Your task to perform on an android device: turn on the 12-hour format for clock Image 0: 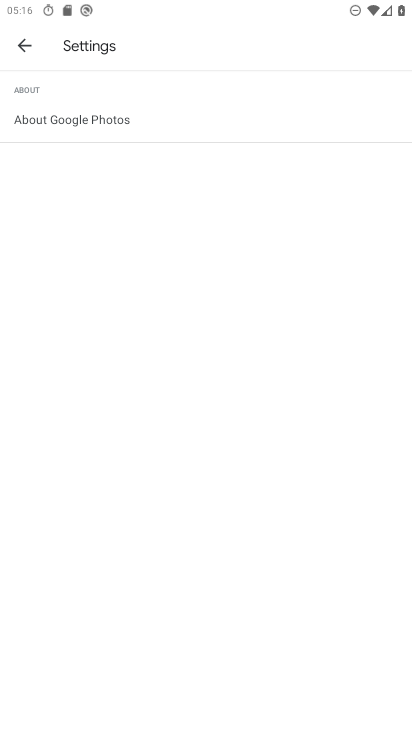
Step 0: press home button
Your task to perform on an android device: turn on the 12-hour format for clock Image 1: 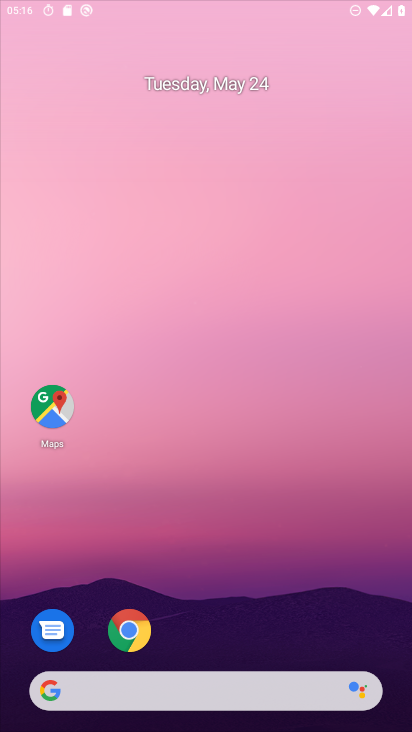
Step 1: drag from (205, 635) to (229, 345)
Your task to perform on an android device: turn on the 12-hour format for clock Image 2: 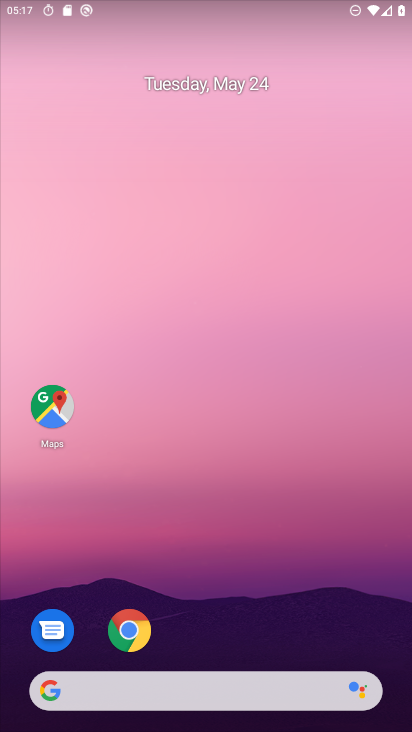
Step 2: drag from (214, 640) to (236, 249)
Your task to perform on an android device: turn on the 12-hour format for clock Image 3: 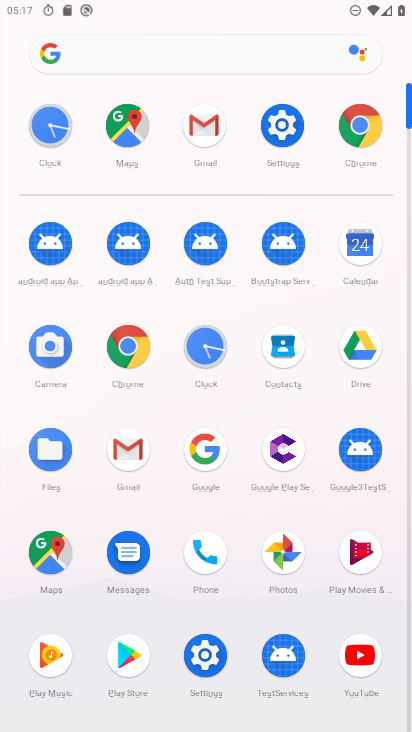
Step 3: click (203, 338)
Your task to perform on an android device: turn on the 12-hour format for clock Image 4: 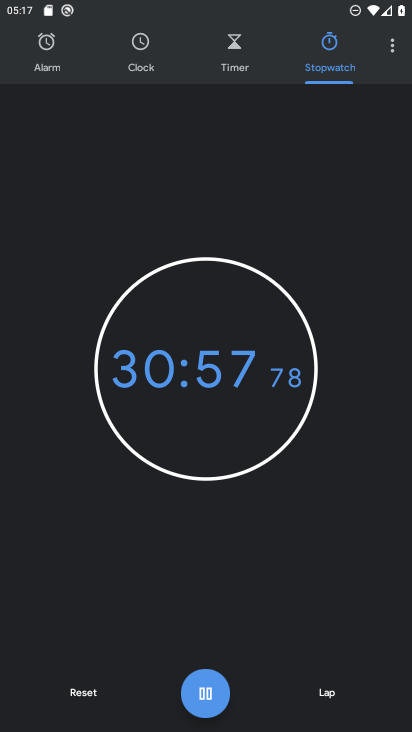
Step 4: click (393, 54)
Your task to perform on an android device: turn on the 12-hour format for clock Image 5: 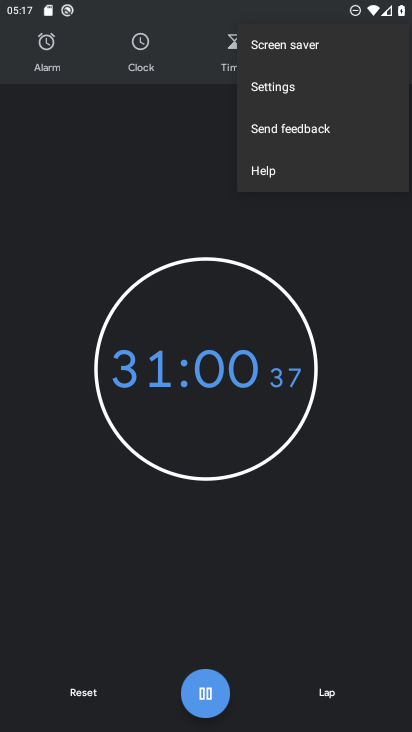
Step 5: click (308, 90)
Your task to perform on an android device: turn on the 12-hour format for clock Image 6: 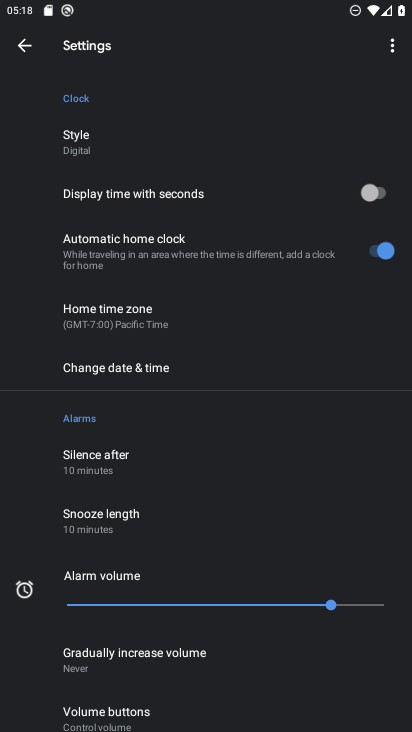
Step 6: task complete